Your task to perform on an android device: turn notification dots off Image 0: 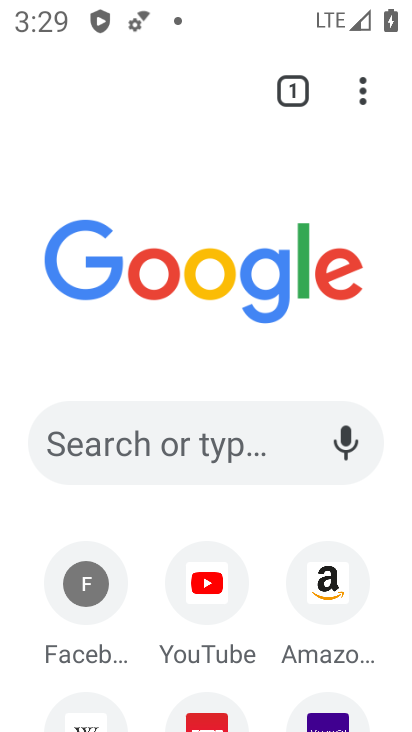
Step 0: press home button
Your task to perform on an android device: turn notification dots off Image 1: 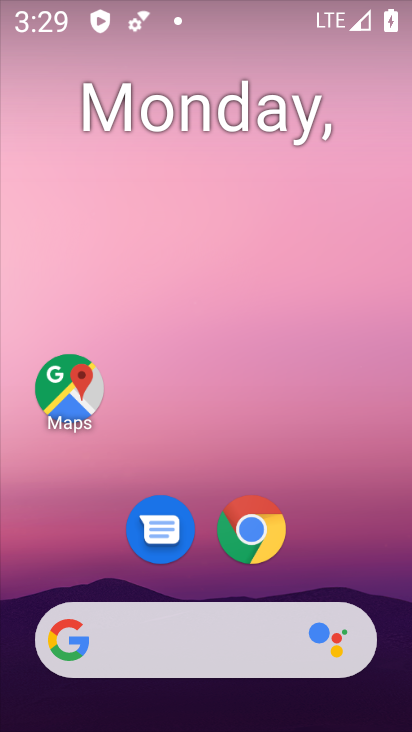
Step 1: drag from (183, 591) to (179, 201)
Your task to perform on an android device: turn notification dots off Image 2: 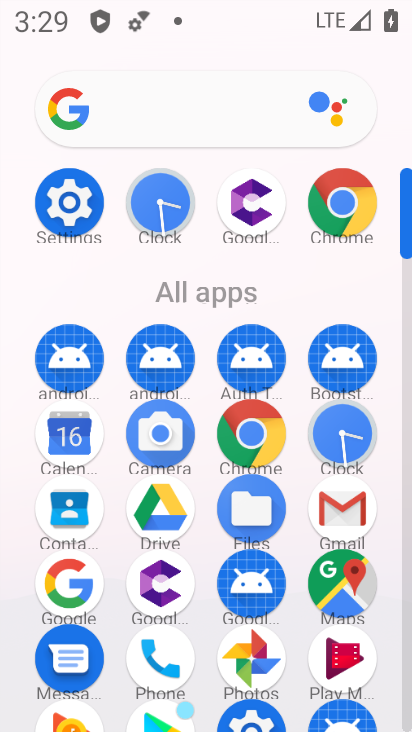
Step 2: click (76, 205)
Your task to perform on an android device: turn notification dots off Image 3: 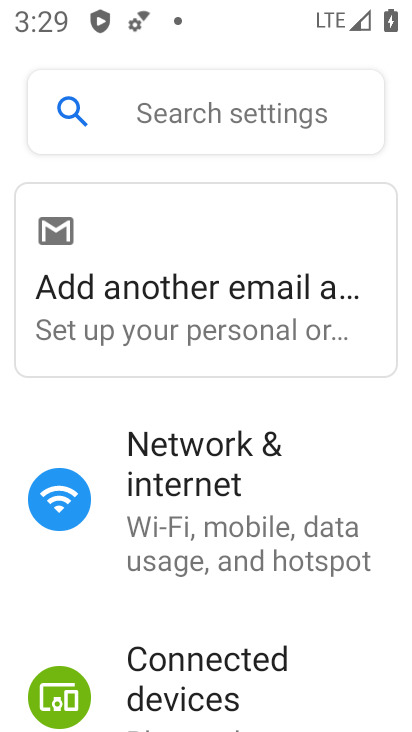
Step 3: drag from (237, 617) to (200, 92)
Your task to perform on an android device: turn notification dots off Image 4: 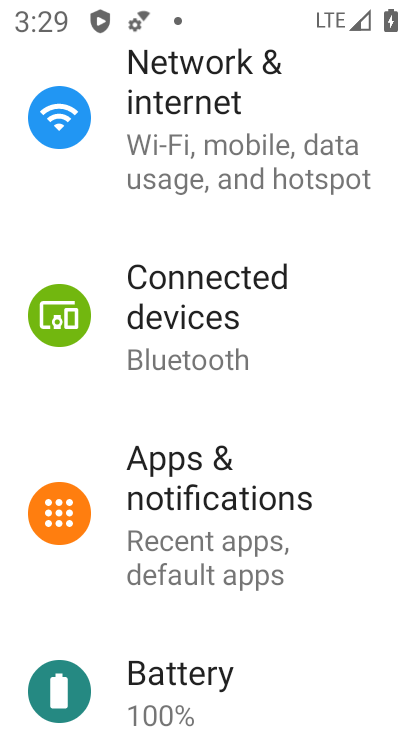
Step 4: click (190, 524)
Your task to perform on an android device: turn notification dots off Image 5: 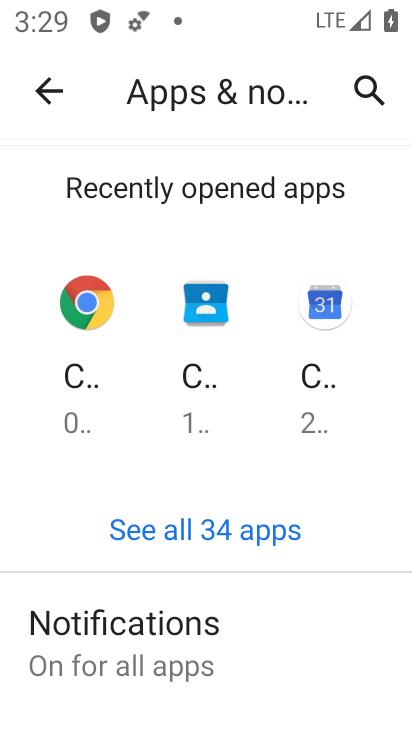
Step 5: drag from (152, 639) to (140, 92)
Your task to perform on an android device: turn notification dots off Image 6: 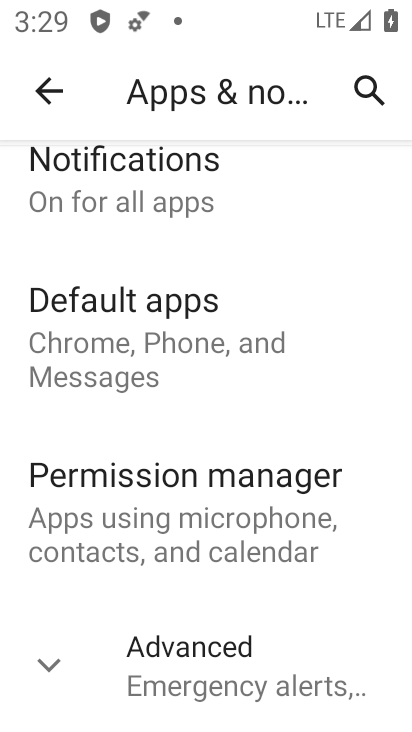
Step 6: drag from (152, 281) to (118, 502)
Your task to perform on an android device: turn notification dots off Image 7: 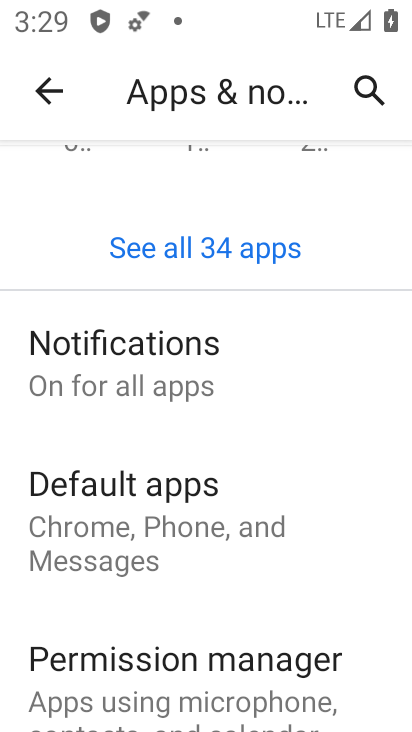
Step 7: click (123, 391)
Your task to perform on an android device: turn notification dots off Image 8: 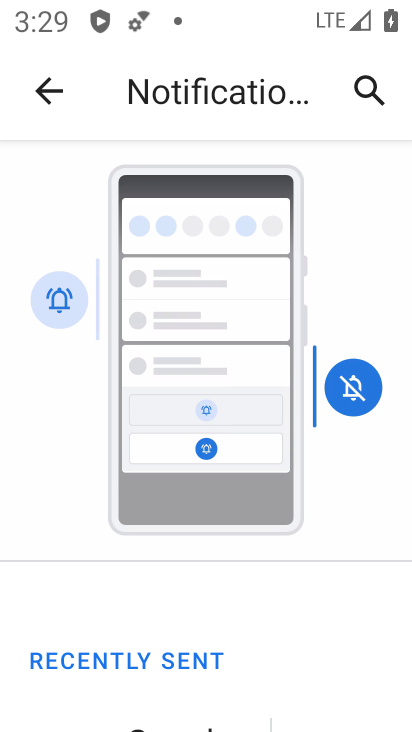
Step 8: drag from (157, 574) to (156, 204)
Your task to perform on an android device: turn notification dots off Image 9: 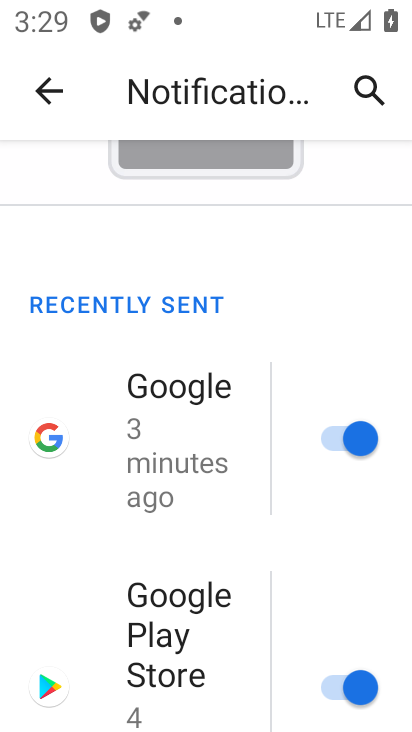
Step 9: drag from (191, 614) to (199, 83)
Your task to perform on an android device: turn notification dots off Image 10: 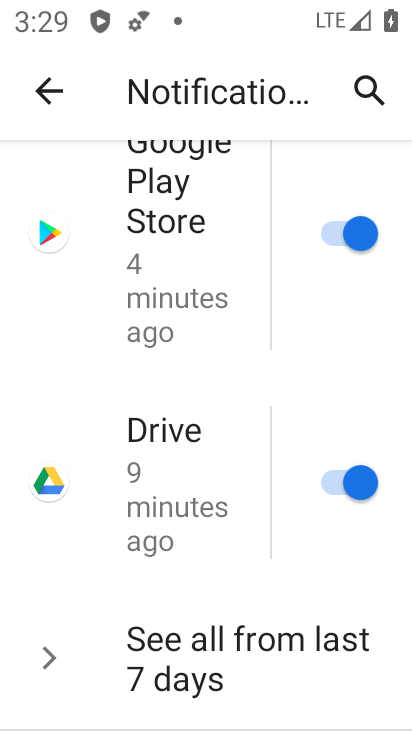
Step 10: drag from (140, 609) to (161, 99)
Your task to perform on an android device: turn notification dots off Image 11: 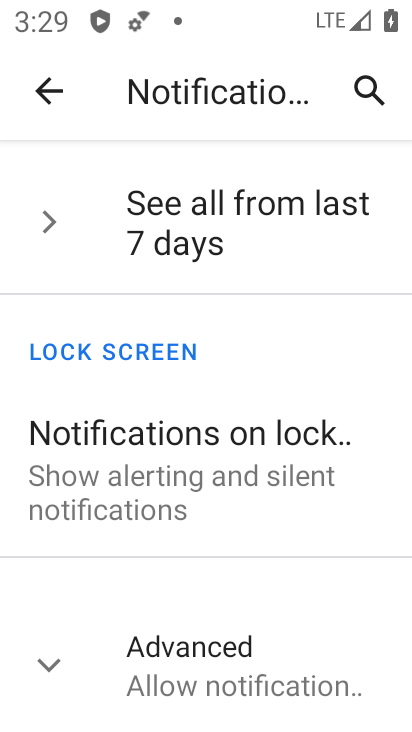
Step 11: click (177, 682)
Your task to perform on an android device: turn notification dots off Image 12: 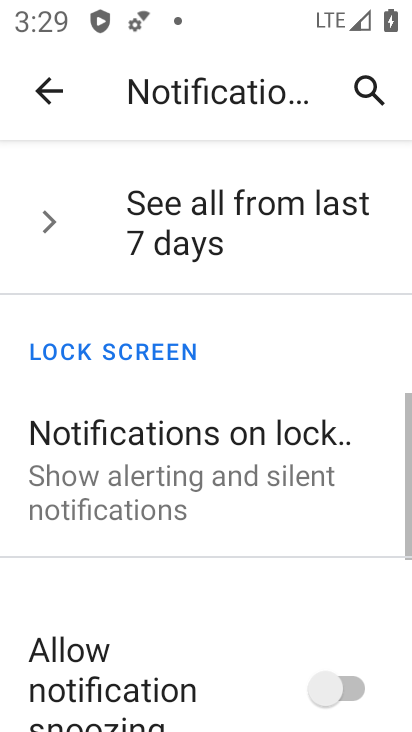
Step 12: drag from (199, 624) to (199, 188)
Your task to perform on an android device: turn notification dots off Image 13: 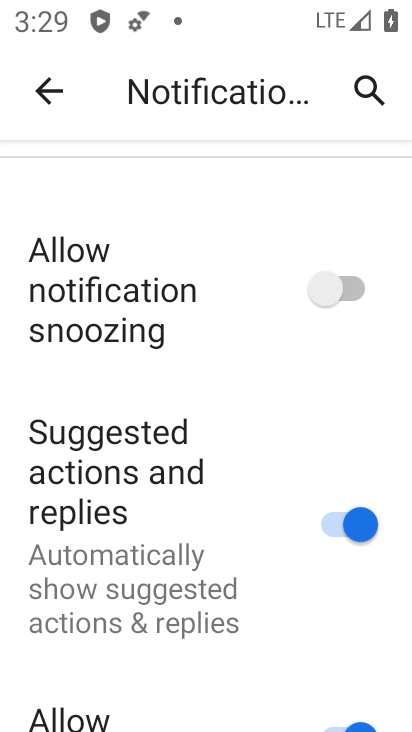
Step 13: drag from (173, 611) to (182, 177)
Your task to perform on an android device: turn notification dots off Image 14: 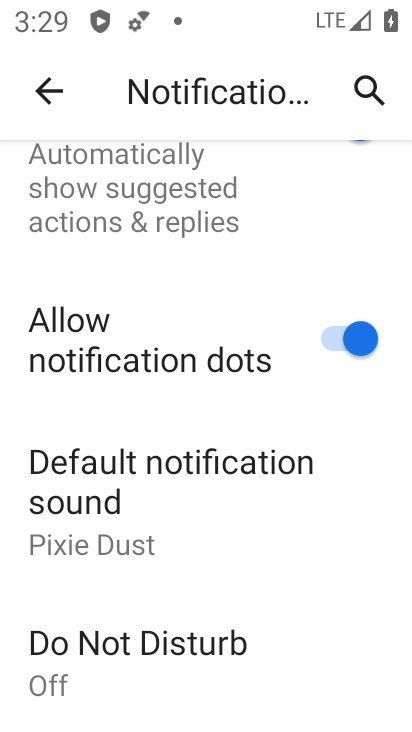
Step 14: click (316, 342)
Your task to perform on an android device: turn notification dots off Image 15: 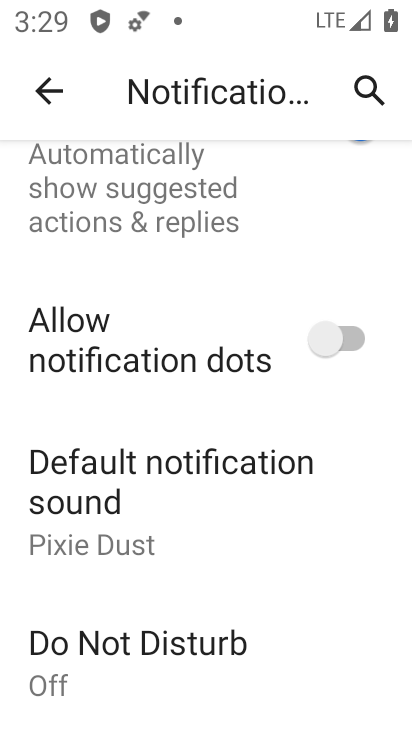
Step 15: task complete